Your task to perform on an android device: turn on the 24-hour format for clock Image 0: 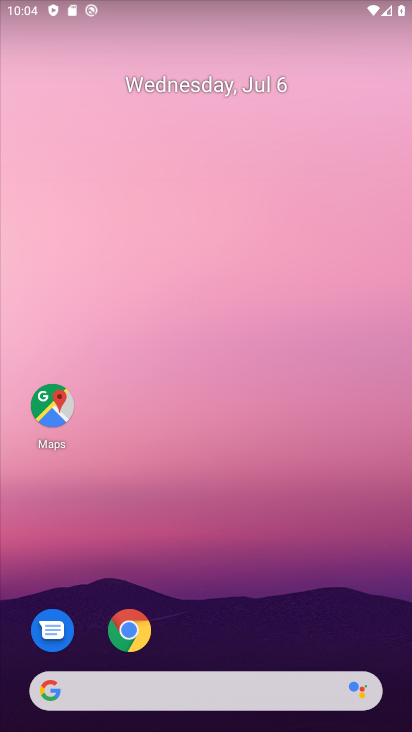
Step 0: drag from (259, 591) to (272, 135)
Your task to perform on an android device: turn on the 24-hour format for clock Image 1: 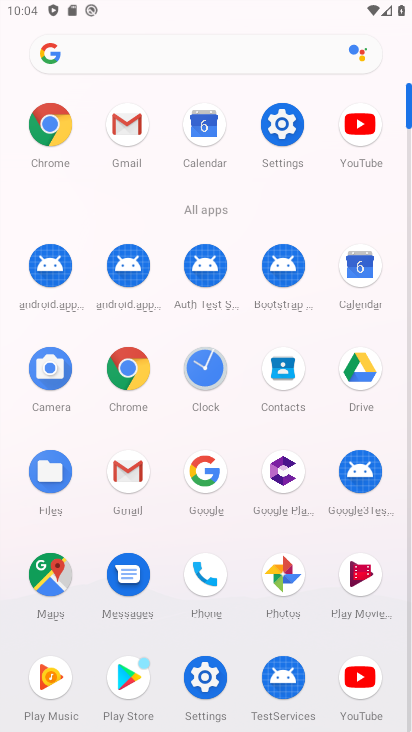
Step 1: click (185, 378)
Your task to perform on an android device: turn on the 24-hour format for clock Image 2: 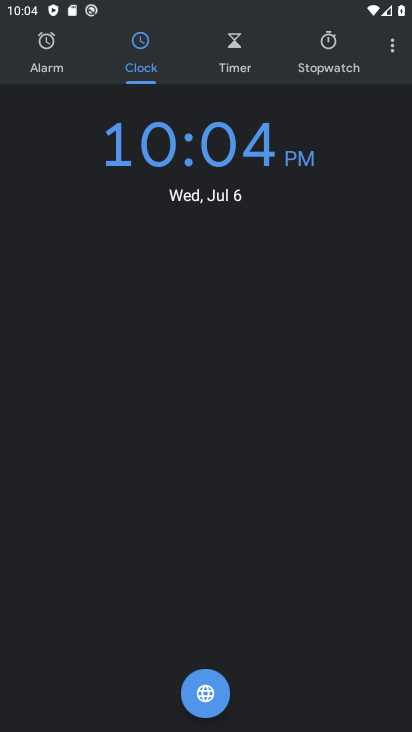
Step 2: click (385, 47)
Your task to perform on an android device: turn on the 24-hour format for clock Image 3: 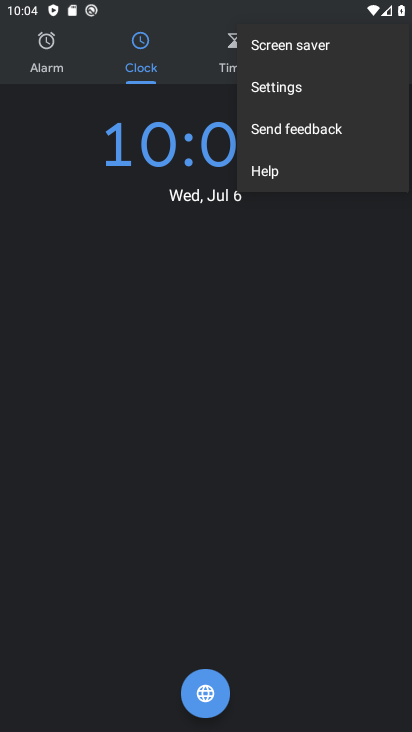
Step 3: click (321, 90)
Your task to perform on an android device: turn on the 24-hour format for clock Image 4: 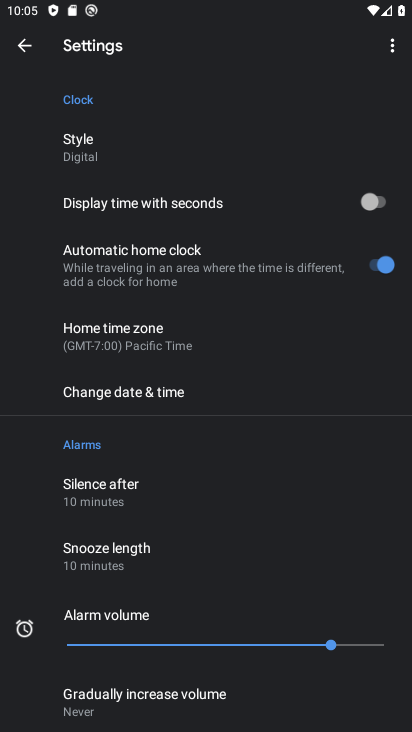
Step 4: click (209, 400)
Your task to perform on an android device: turn on the 24-hour format for clock Image 5: 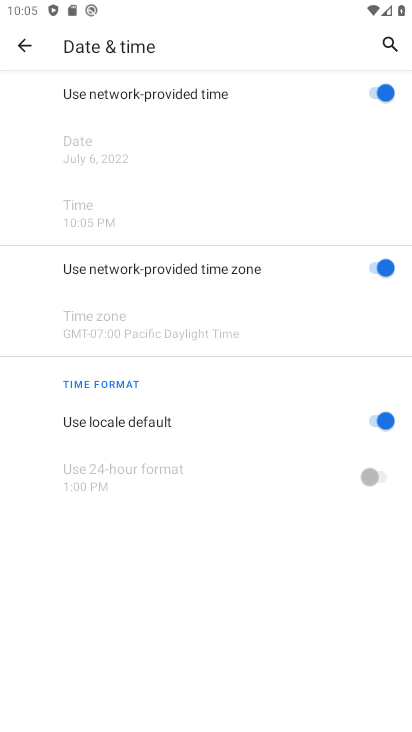
Step 5: click (377, 416)
Your task to perform on an android device: turn on the 24-hour format for clock Image 6: 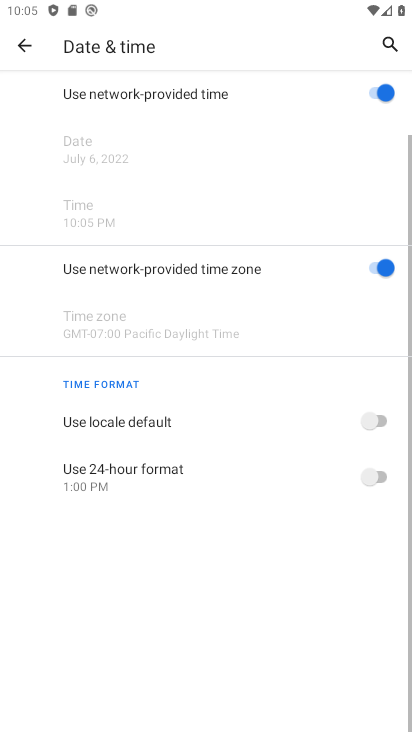
Step 6: click (378, 471)
Your task to perform on an android device: turn on the 24-hour format for clock Image 7: 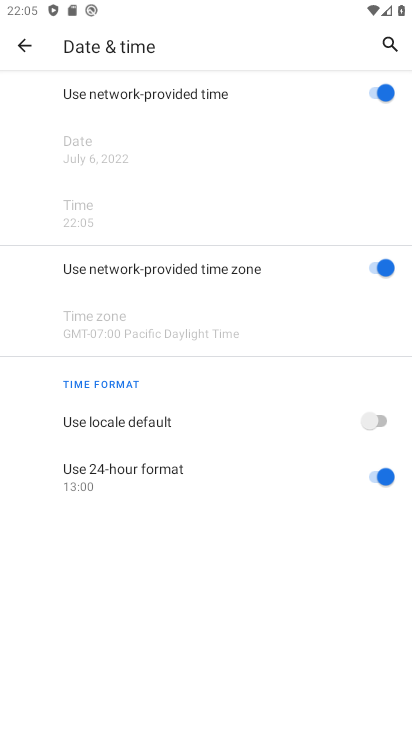
Step 7: task complete